Your task to perform on an android device: Go to privacy settings Image 0: 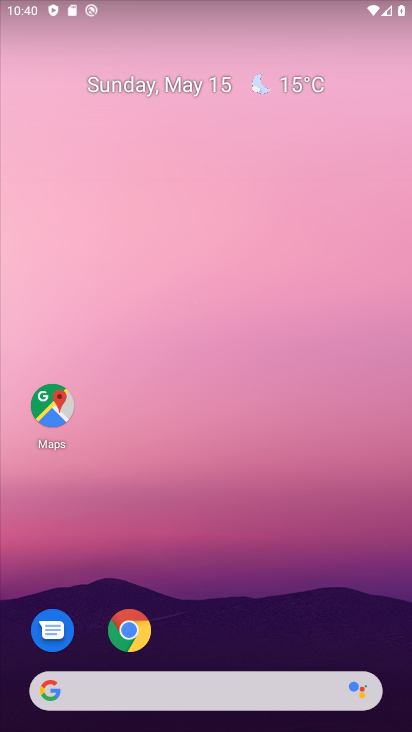
Step 0: drag from (229, 726) to (220, 98)
Your task to perform on an android device: Go to privacy settings Image 1: 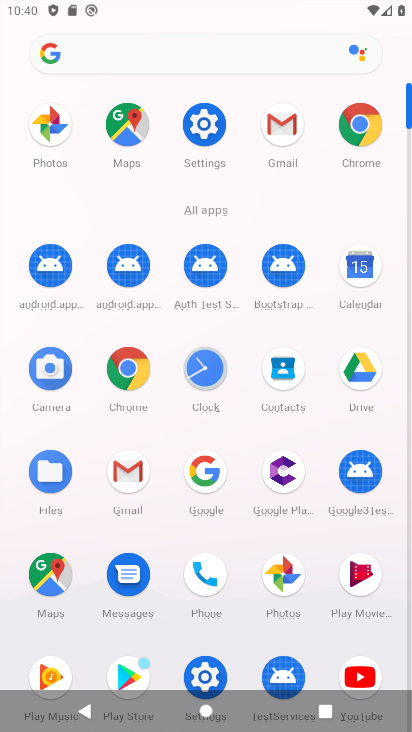
Step 1: click (212, 119)
Your task to perform on an android device: Go to privacy settings Image 2: 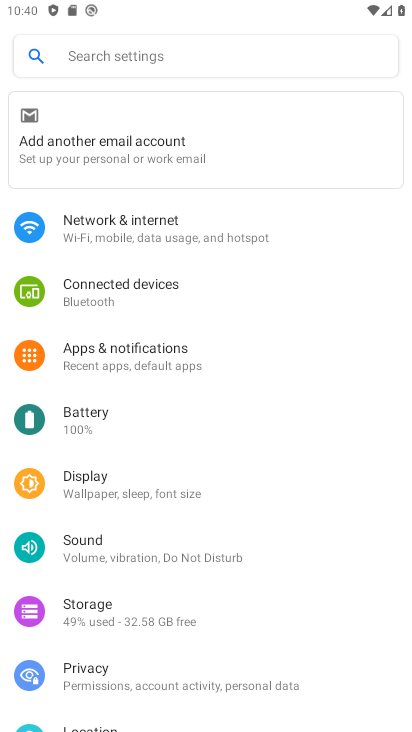
Step 2: click (91, 670)
Your task to perform on an android device: Go to privacy settings Image 3: 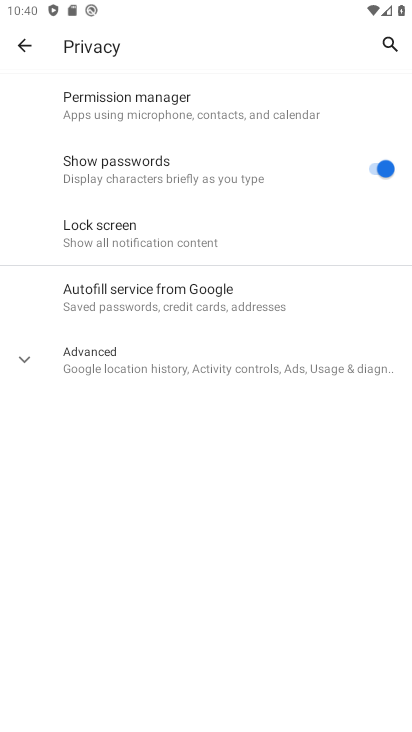
Step 3: task complete